Your task to perform on an android device: manage bookmarks in the chrome app Image 0: 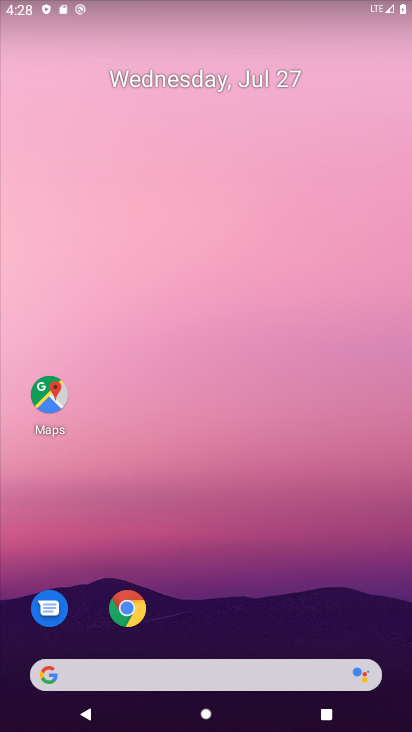
Step 0: drag from (234, 642) to (185, 96)
Your task to perform on an android device: manage bookmarks in the chrome app Image 1: 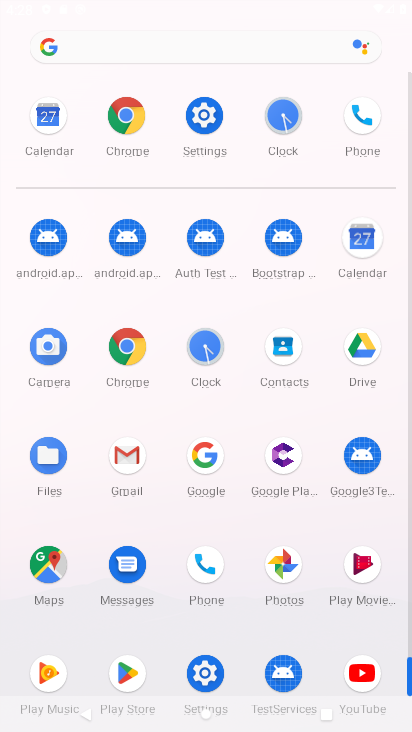
Step 1: drag from (222, 480) to (215, 94)
Your task to perform on an android device: manage bookmarks in the chrome app Image 2: 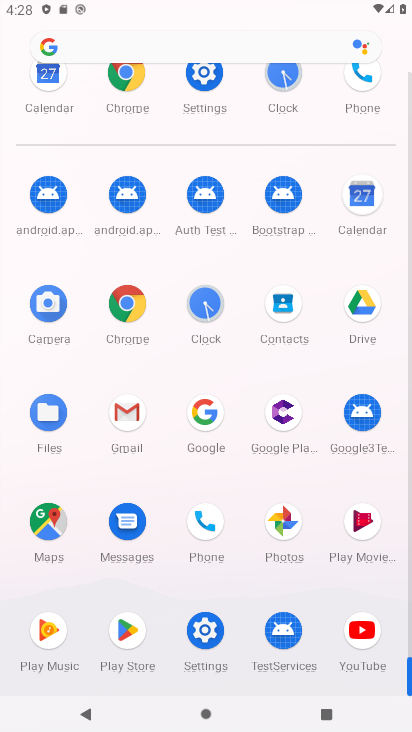
Step 2: click (119, 313)
Your task to perform on an android device: manage bookmarks in the chrome app Image 3: 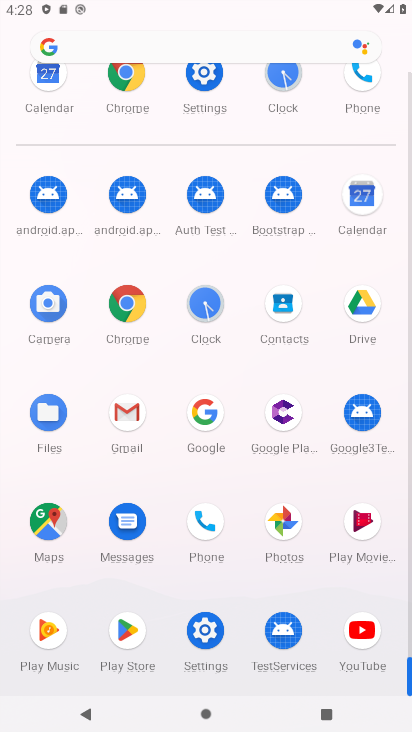
Step 3: click (120, 311)
Your task to perform on an android device: manage bookmarks in the chrome app Image 4: 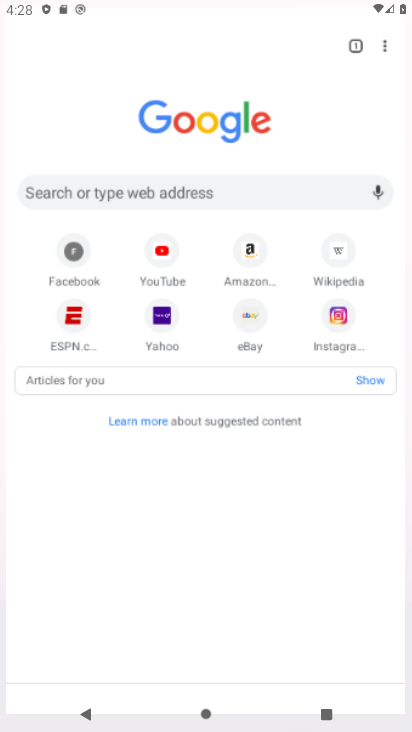
Step 4: click (122, 313)
Your task to perform on an android device: manage bookmarks in the chrome app Image 5: 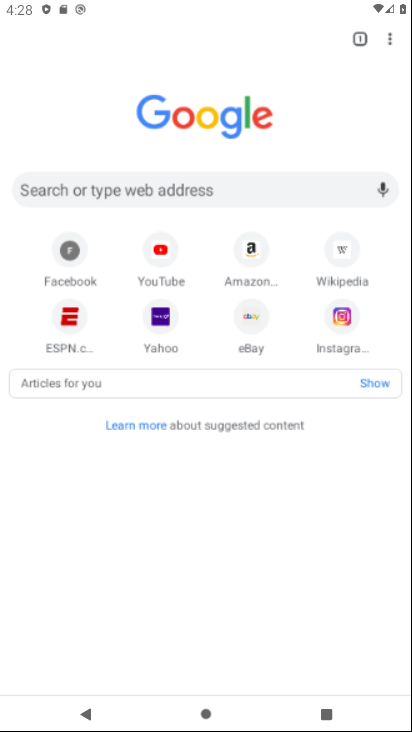
Step 5: click (123, 314)
Your task to perform on an android device: manage bookmarks in the chrome app Image 6: 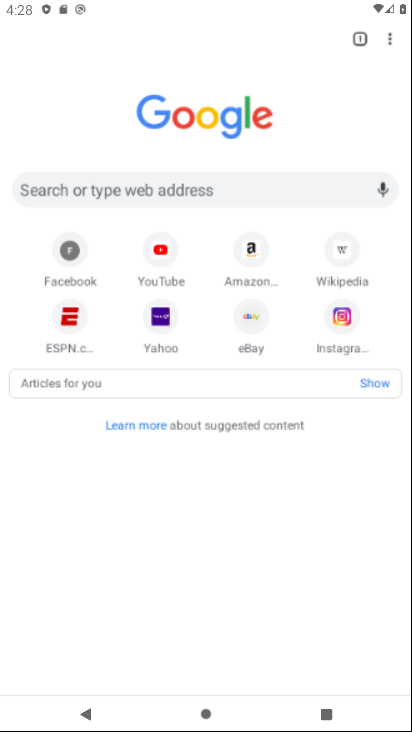
Step 6: click (133, 315)
Your task to perform on an android device: manage bookmarks in the chrome app Image 7: 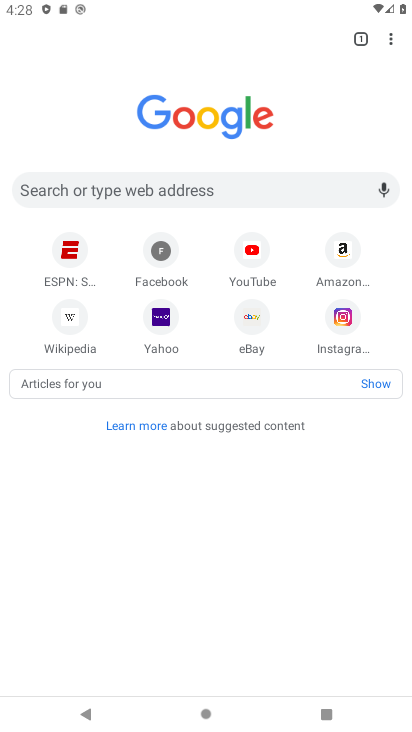
Step 7: drag from (395, 36) to (256, 153)
Your task to perform on an android device: manage bookmarks in the chrome app Image 8: 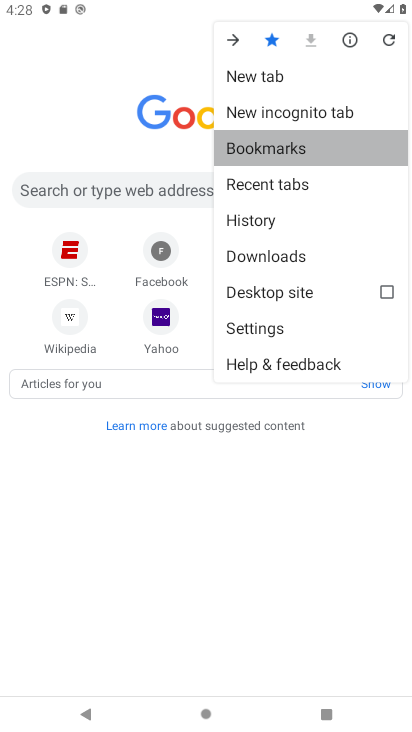
Step 8: click (262, 148)
Your task to perform on an android device: manage bookmarks in the chrome app Image 9: 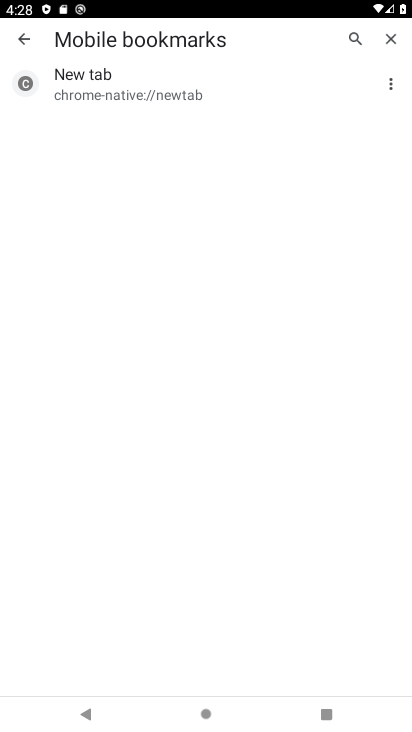
Step 9: click (390, 80)
Your task to perform on an android device: manage bookmarks in the chrome app Image 10: 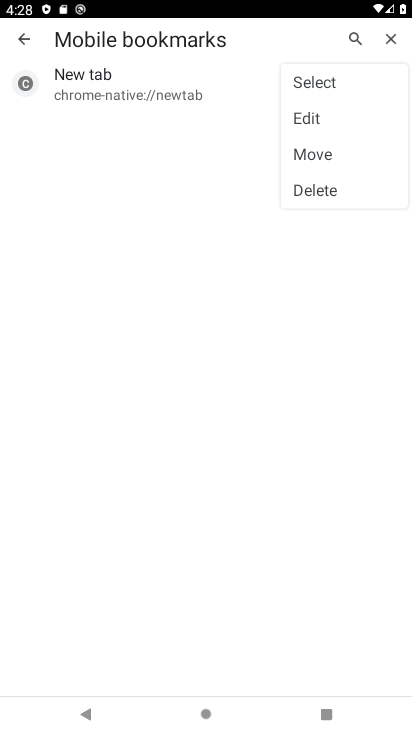
Step 10: click (175, 197)
Your task to perform on an android device: manage bookmarks in the chrome app Image 11: 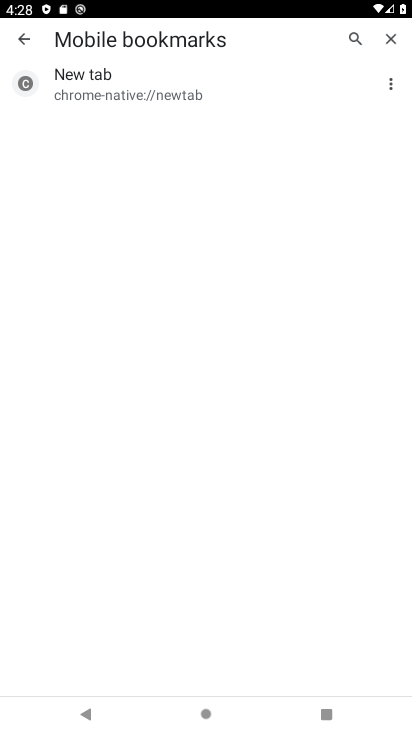
Step 11: click (396, 82)
Your task to perform on an android device: manage bookmarks in the chrome app Image 12: 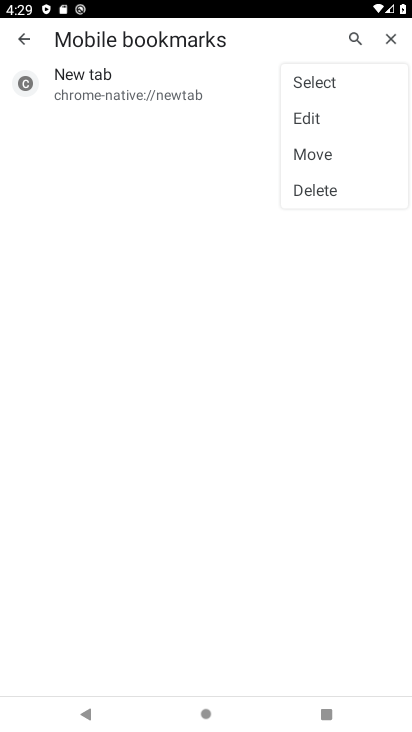
Step 12: click (312, 185)
Your task to perform on an android device: manage bookmarks in the chrome app Image 13: 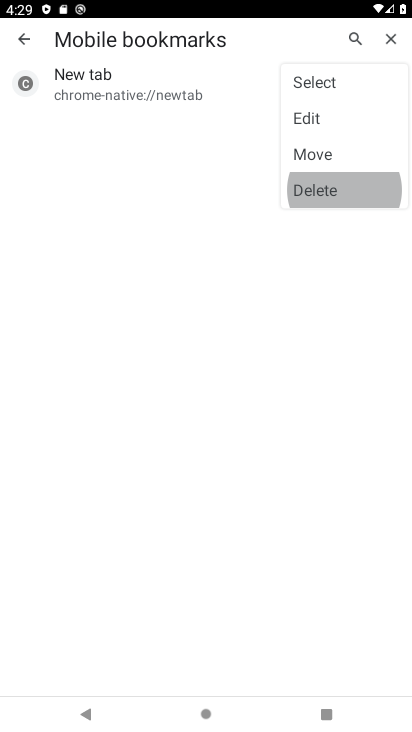
Step 13: click (312, 185)
Your task to perform on an android device: manage bookmarks in the chrome app Image 14: 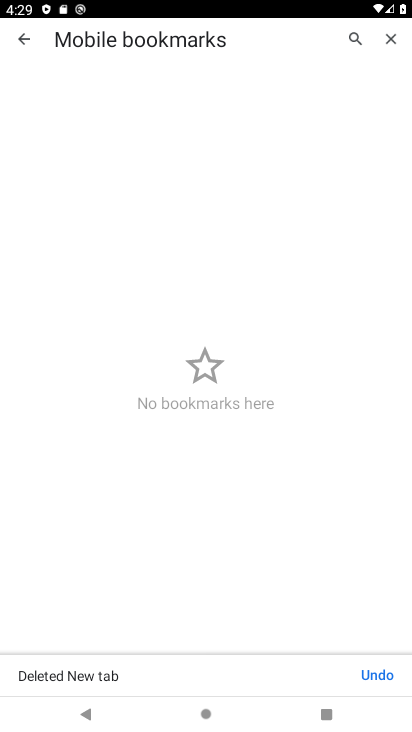
Step 14: task complete